Your task to perform on an android device: find snoozed emails in the gmail app Image 0: 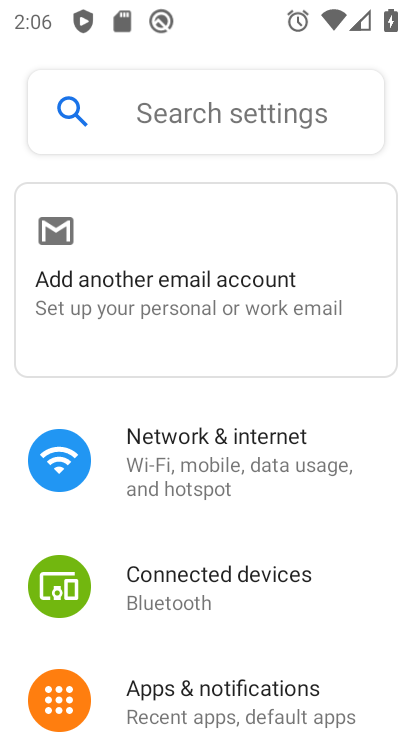
Step 0: drag from (337, 611) to (340, 308)
Your task to perform on an android device: find snoozed emails in the gmail app Image 1: 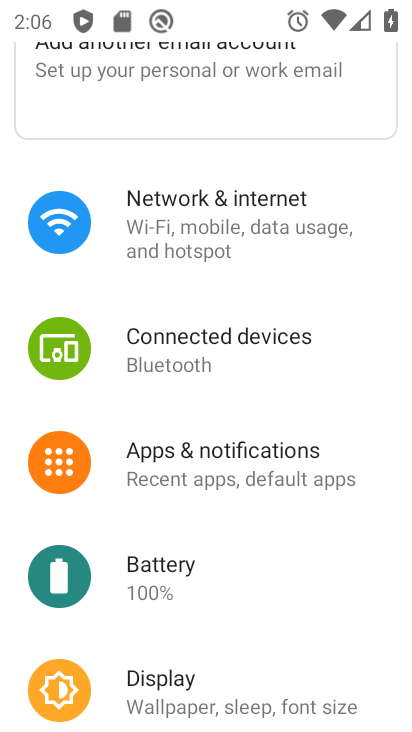
Step 1: press home button
Your task to perform on an android device: find snoozed emails in the gmail app Image 2: 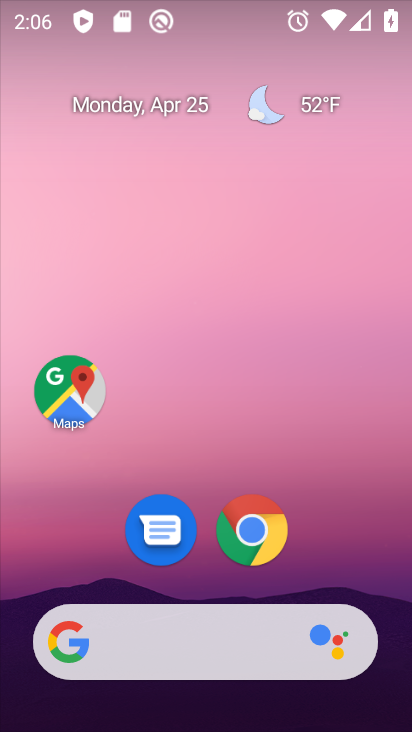
Step 2: drag from (378, 560) to (354, 167)
Your task to perform on an android device: find snoozed emails in the gmail app Image 3: 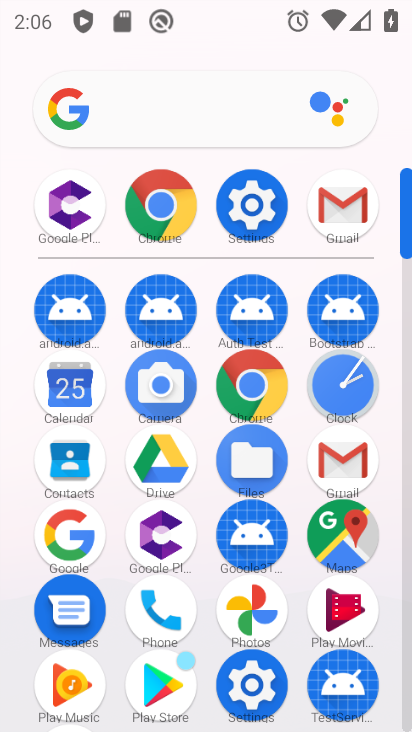
Step 3: click (334, 462)
Your task to perform on an android device: find snoozed emails in the gmail app Image 4: 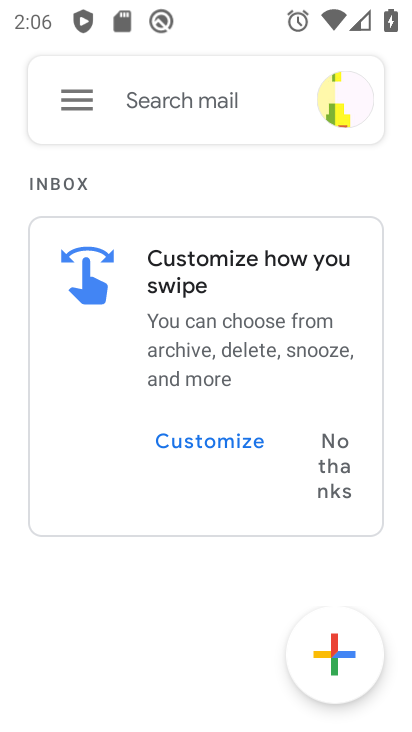
Step 4: click (77, 107)
Your task to perform on an android device: find snoozed emails in the gmail app Image 5: 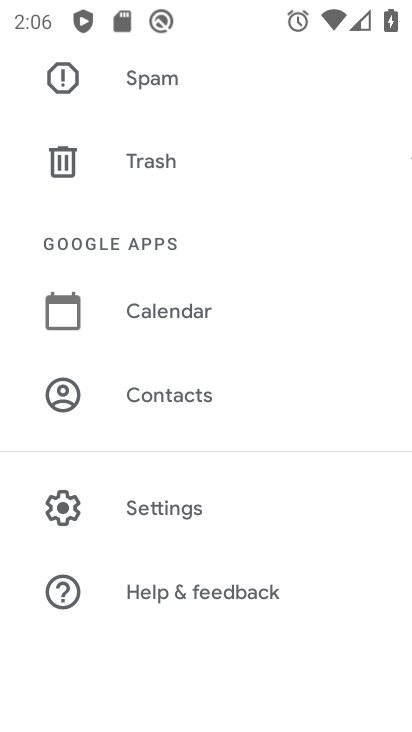
Step 5: drag from (259, 162) to (297, 536)
Your task to perform on an android device: find snoozed emails in the gmail app Image 6: 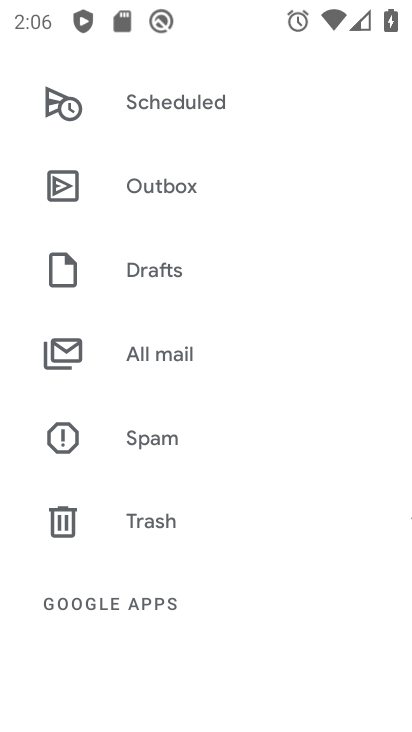
Step 6: drag from (212, 239) to (223, 601)
Your task to perform on an android device: find snoozed emails in the gmail app Image 7: 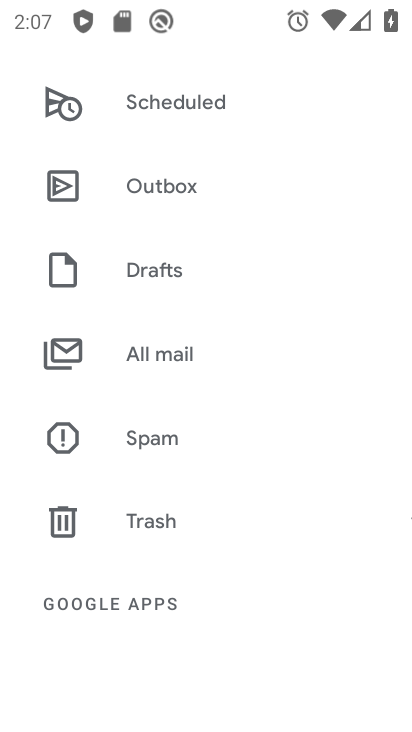
Step 7: drag from (251, 237) to (226, 593)
Your task to perform on an android device: find snoozed emails in the gmail app Image 8: 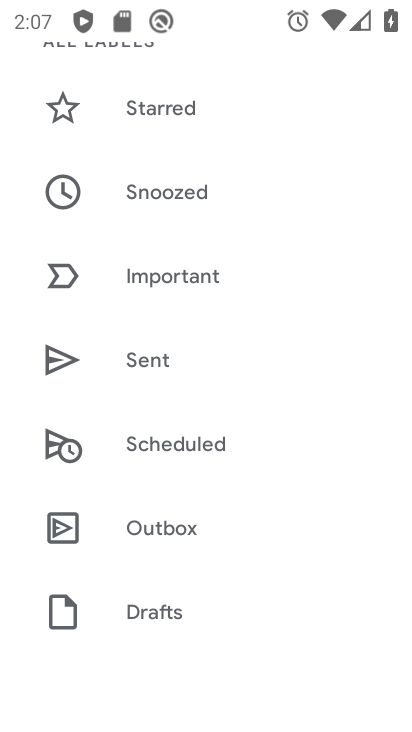
Step 8: click (178, 216)
Your task to perform on an android device: find snoozed emails in the gmail app Image 9: 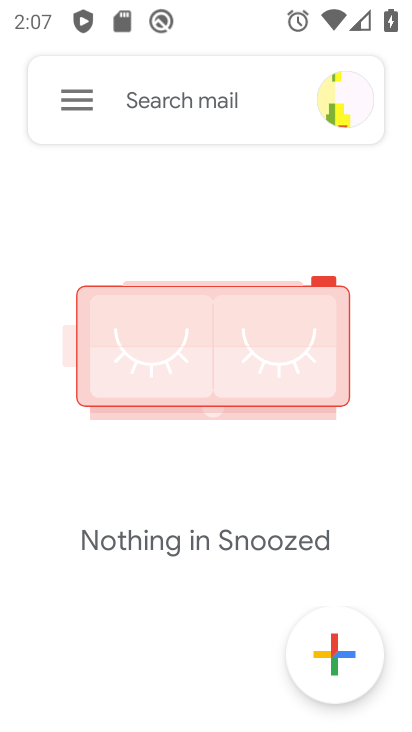
Step 9: task complete